Your task to perform on an android device: Show me the alarms in the clock app Image 0: 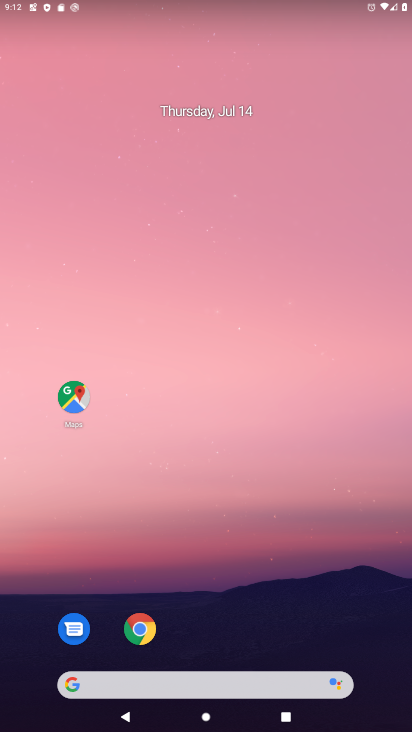
Step 0: drag from (233, 626) to (221, 20)
Your task to perform on an android device: Show me the alarms in the clock app Image 1: 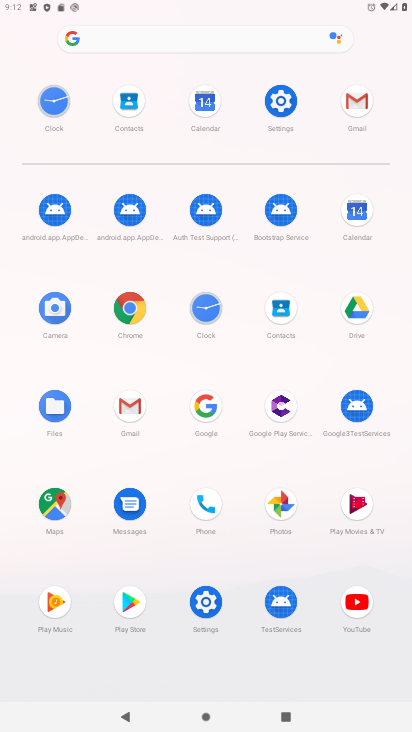
Step 1: click (205, 314)
Your task to perform on an android device: Show me the alarms in the clock app Image 2: 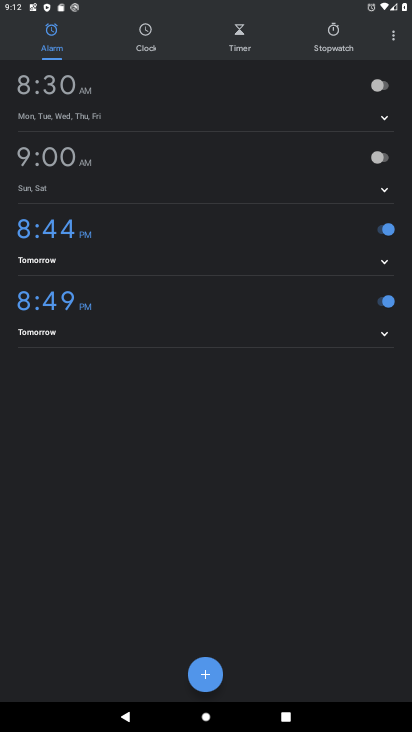
Step 2: task complete